Your task to perform on an android device: change the clock display to show seconds Image 0: 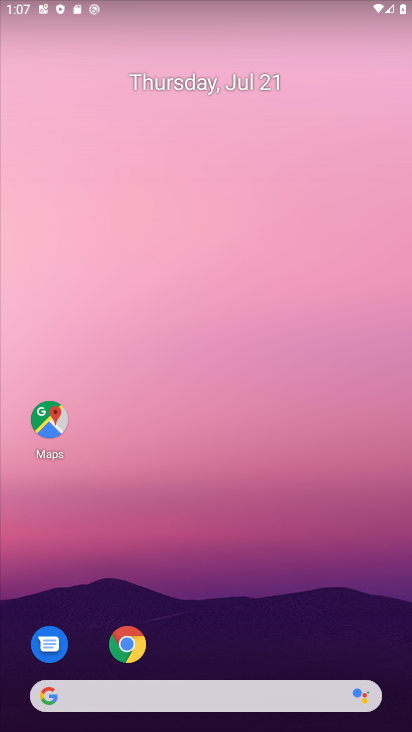
Step 0: drag from (302, 637) to (289, 169)
Your task to perform on an android device: change the clock display to show seconds Image 1: 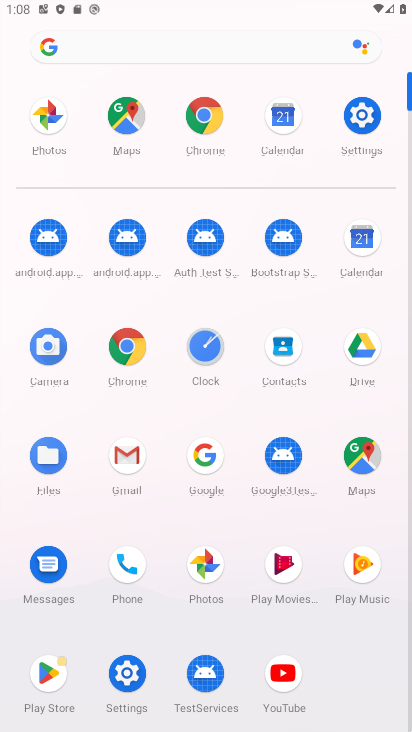
Step 1: click (118, 678)
Your task to perform on an android device: change the clock display to show seconds Image 2: 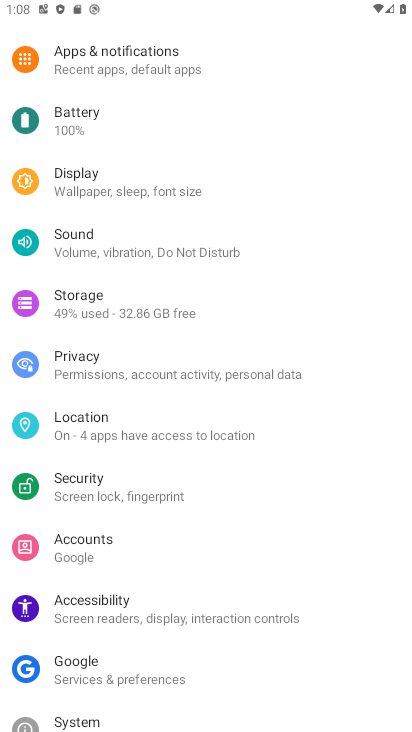
Step 2: press home button
Your task to perform on an android device: change the clock display to show seconds Image 3: 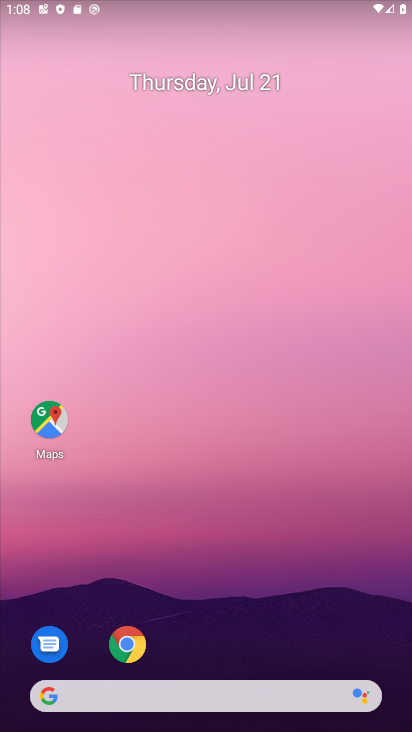
Step 3: drag from (253, 626) to (218, 24)
Your task to perform on an android device: change the clock display to show seconds Image 4: 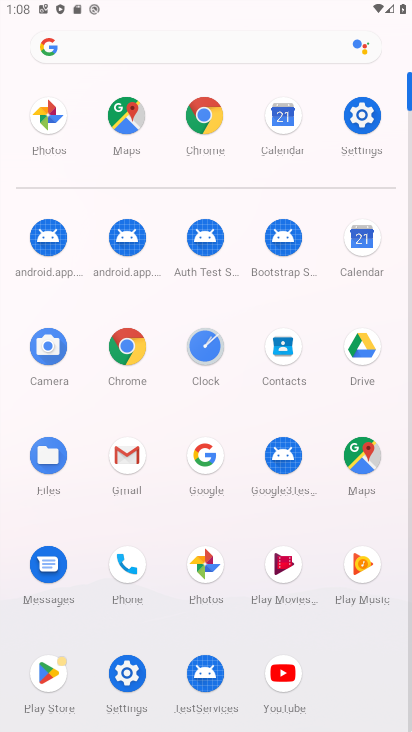
Step 4: click (210, 348)
Your task to perform on an android device: change the clock display to show seconds Image 5: 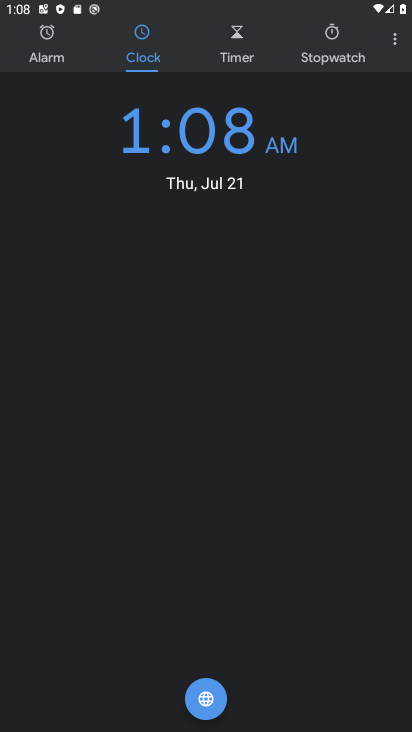
Step 5: click (399, 43)
Your task to perform on an android device: change the clock display to show seconds Image 6: 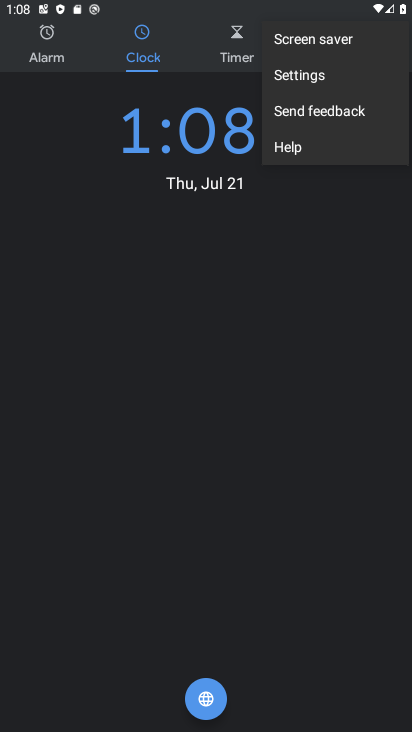
Step 6: click (306, 90)
Your task to perform on an android device: change the clock display to show seconds Image 7: 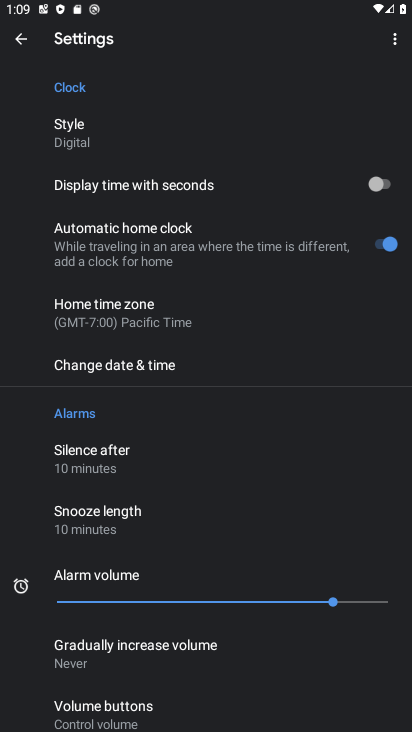
Step 7: click (169, 176)
Your task to perform on an android device: change the clock display to show seconds Image 8: 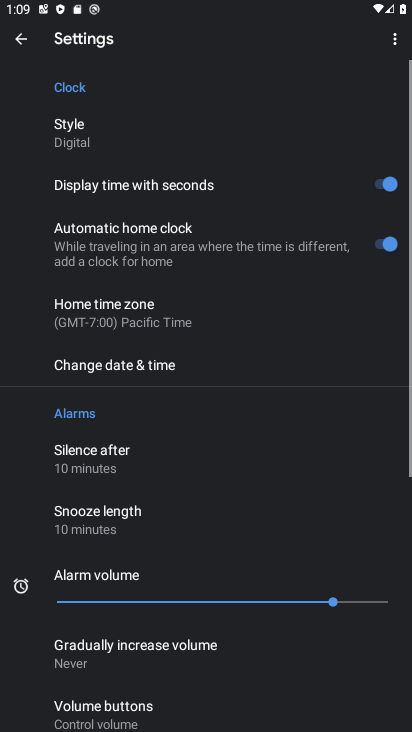
Step 8: task complete